Your task to perform on an android device: Open calendar and show me the first week of next month Image 0: 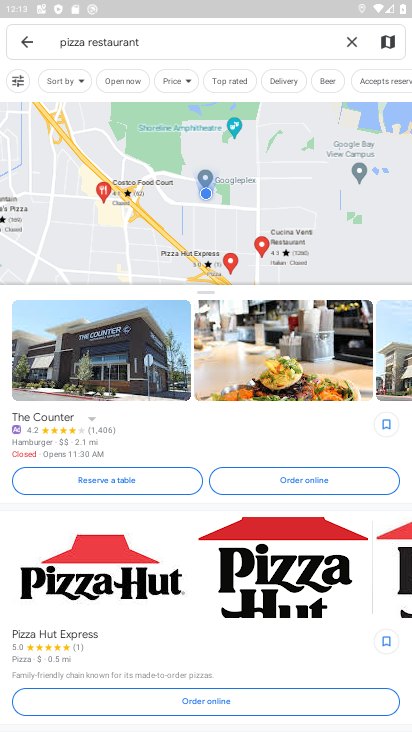
Step 0: press home button
Your task to perform on an android device: Open calendar and show me the first week of next month Image 1: 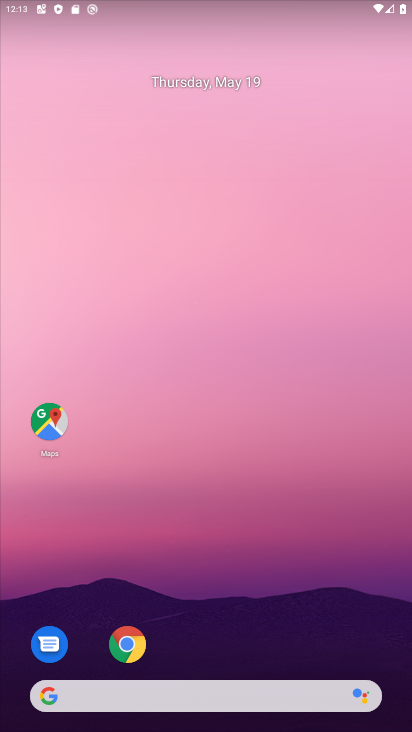
Step 1: drag from (362, 634) to (364, 153)
Your task to perform on an android device: Open calendar and show me the first week of next month Image 2: 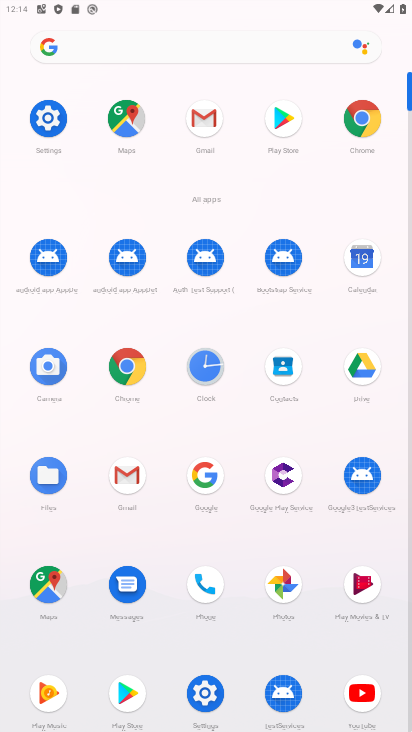
Step 2: click (354, 256)
Your task to perform on an android device: Open calendar and show me the first week of next month Image 3: 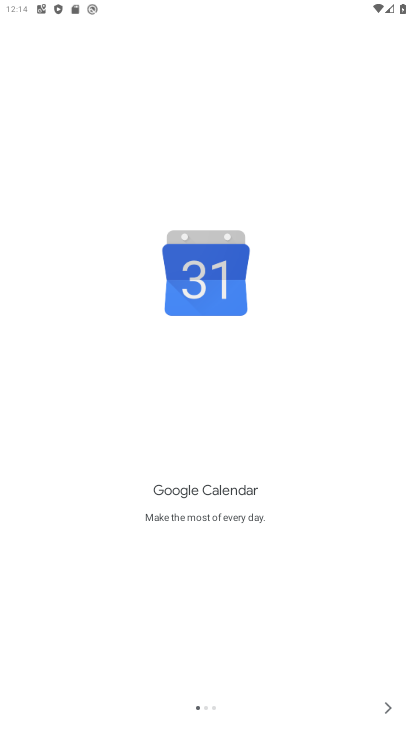
Step 3: click (386, 694)
Your task to perform on an android device: Open calendar and show me the first week of next month Image 4: 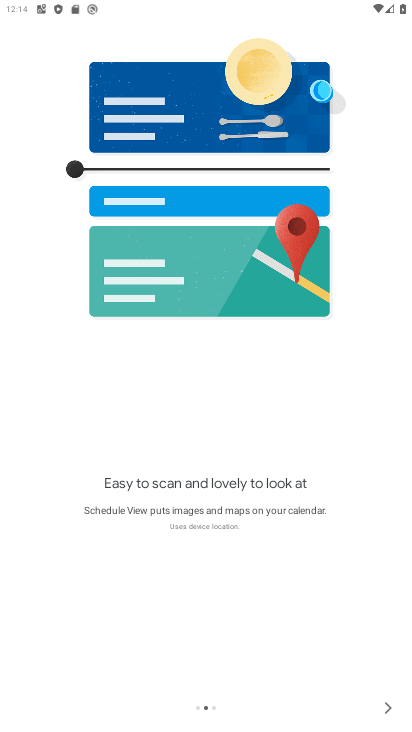
Step 4: click (384, 692)
Your task to perform on an android device: Open calendar and show me the first week of next month Image 5: 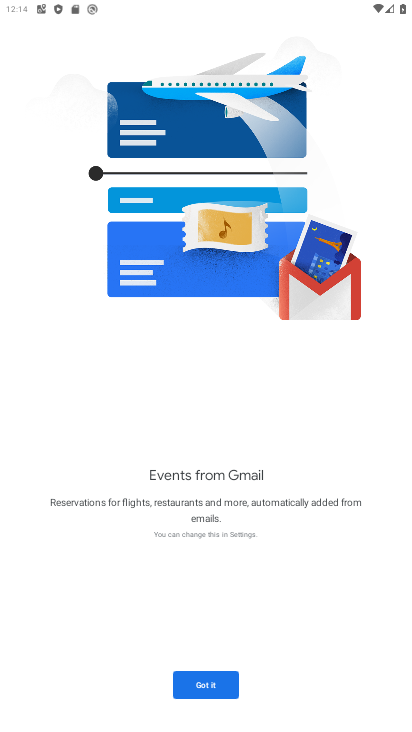
Step 5: click (384, 692)
Your task to perform on an android device: Open calendar and show me the first week of next month Image 6: 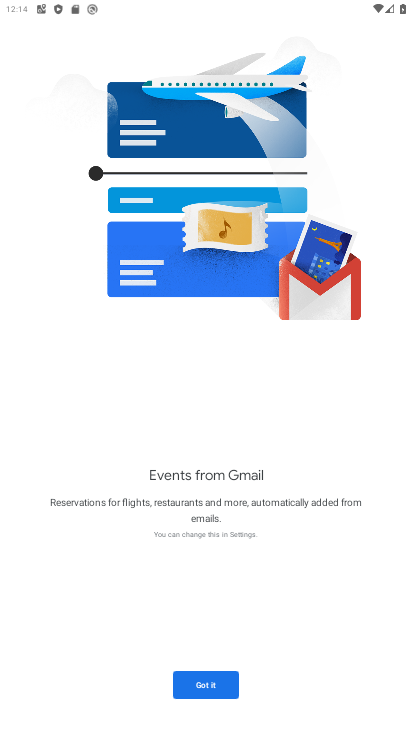
Step 6: click (201, 685)
Your task to perform on an android device: Open calendar and show me the first week of next month Image 7: 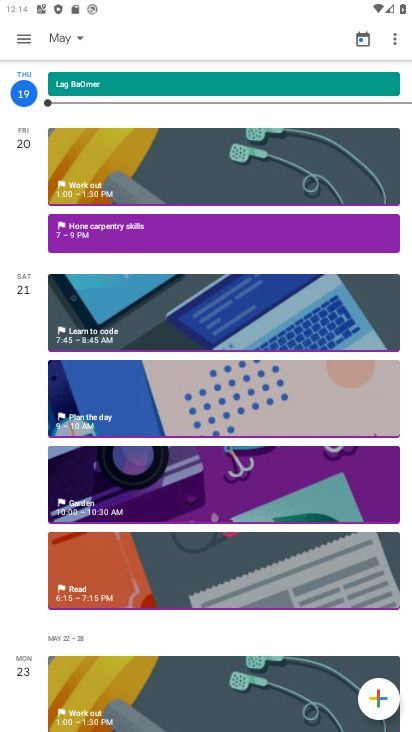
Step 7: click (63, 40)
Your task to perform on an android device: Open calendar and show me the first week of next month Image 8: 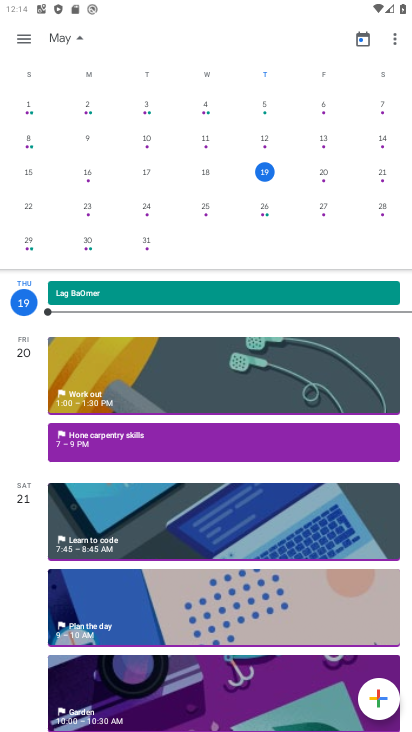
Step 8: task complete